Your task to perform on an android device: change alarm snooze length Image 0: 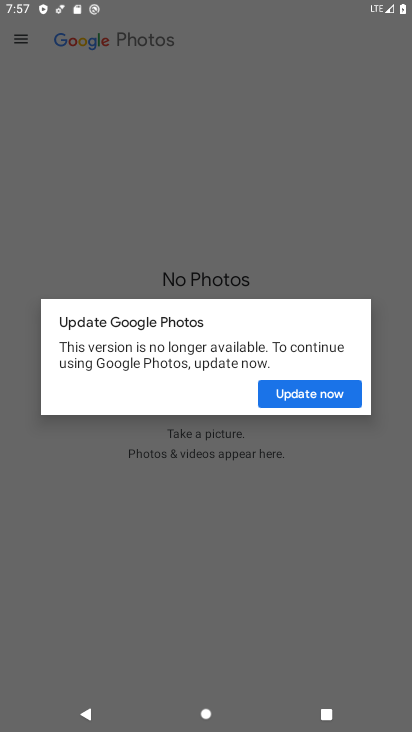
Step 0: press home button
Your task to perform on an android device: change alarm snooze length Image 1: 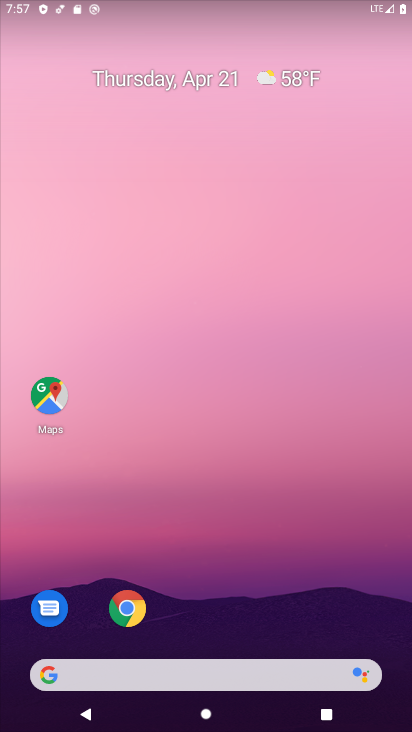
Step 1: drag from (255, 593) to (279, 112)
Your task to perform on an android device: change alarm snooze length Image 2: 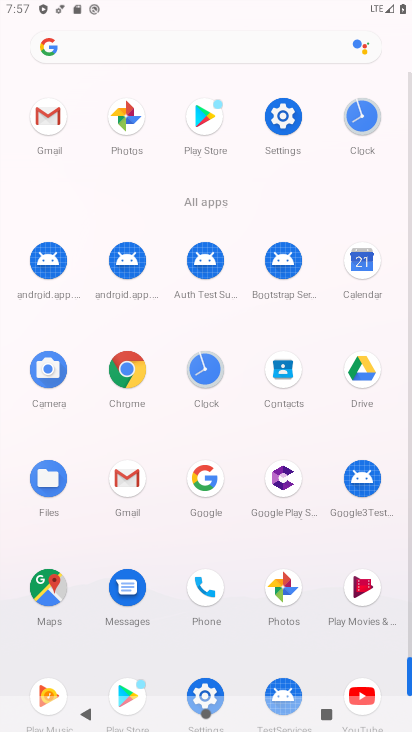
Step 2: click (361, 112)
Your task to perform on an android device: change alarm snooze length Image 3: 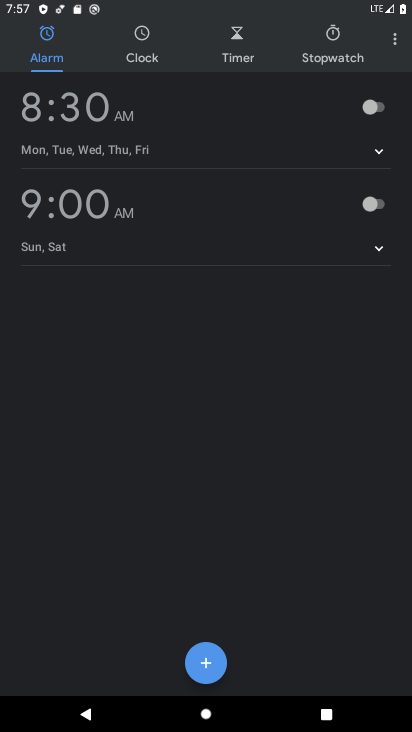
Step 3: click (395, 42)
Your task to perform on an android device: change alarm snooze length Image 4: 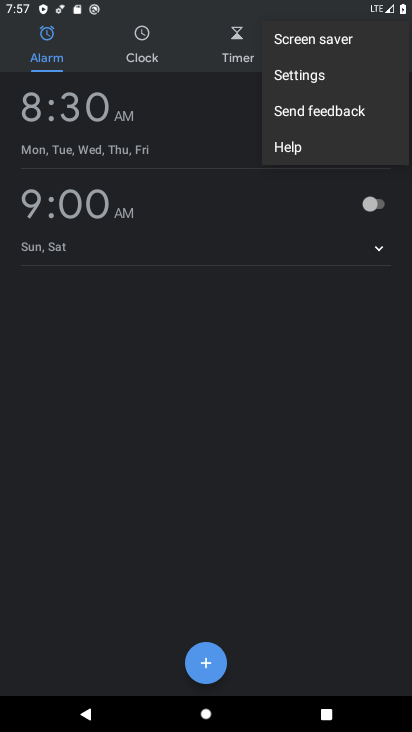
Step 4: click (351, 72)
Your task to perform on an android device: change alarm snooze length Image 5: 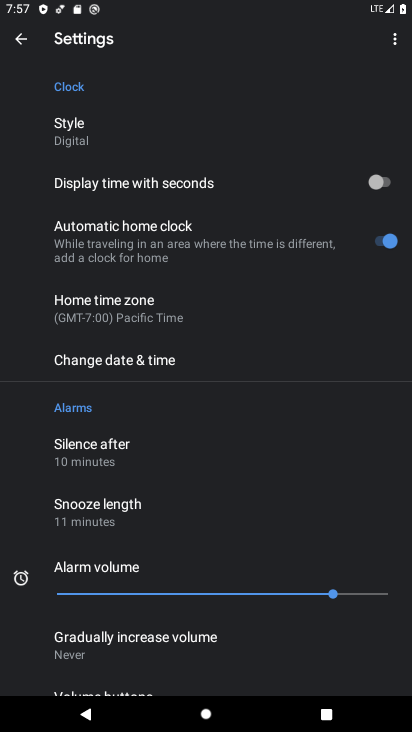
Step 5: click (150, 507)
Your task to perform on an android device: change alarm snooze length Image 6: 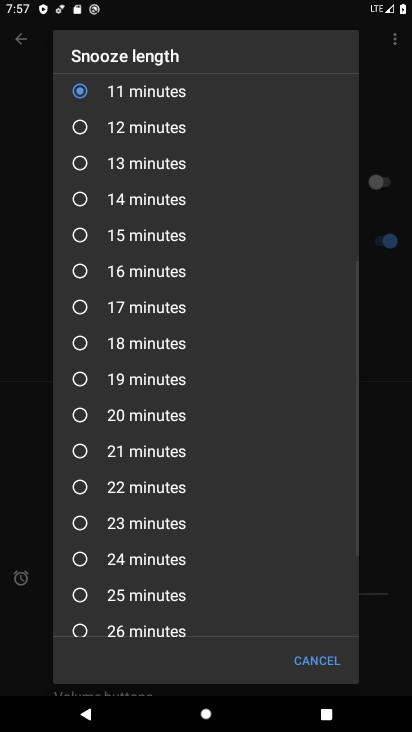
Step 6: drag from (246, 384) to (243, 457)
Your task to perform on an android device: change alarm snooze length Image 7: 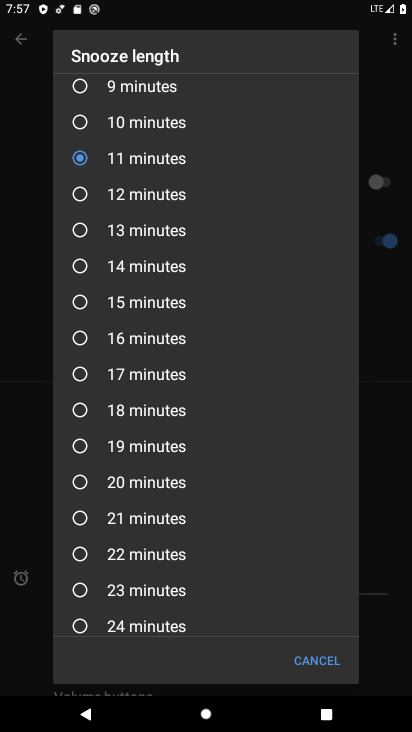
Step 7: click (162, 119)
Your task to perform on an android device: change alarm snooze length Image 8: 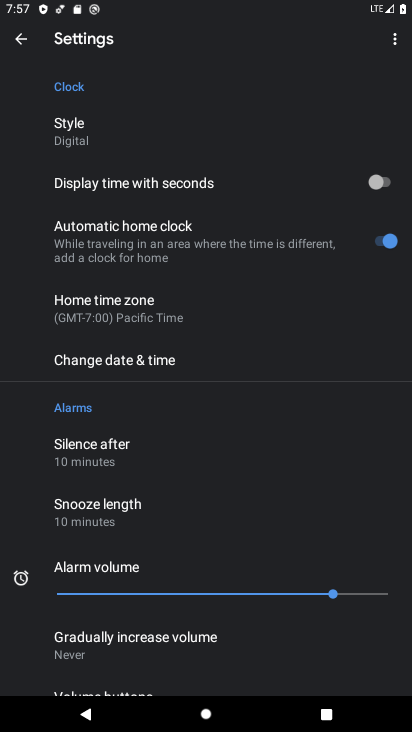
Step 8: task complete